Your task to perform on an android device: Search for vegetarian restaurants on Maps Image 0: 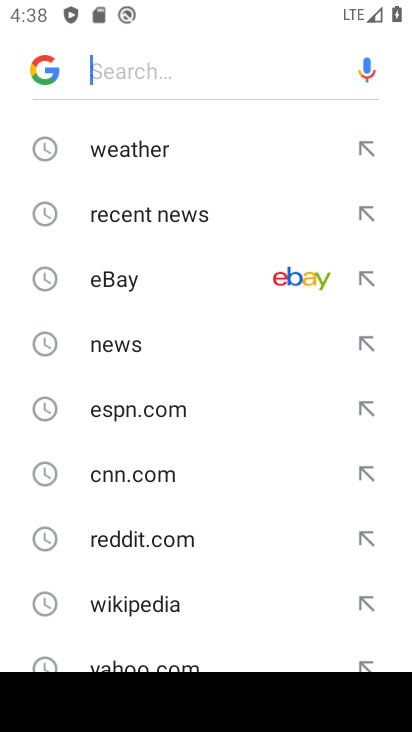
Step 0: press home button
Your task to perform on an android device: Search for vegetarian restaurants on Maps Image 1: 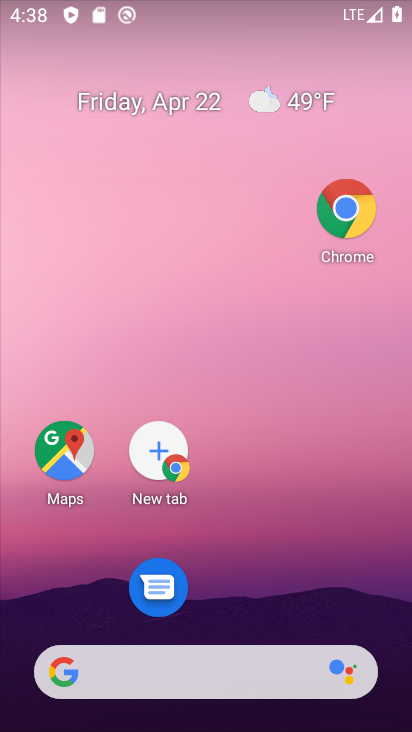
Step 1: click (75, 456)
Your task to perform on an android device: Search for vegetarian restaurants on Maps Image 2: 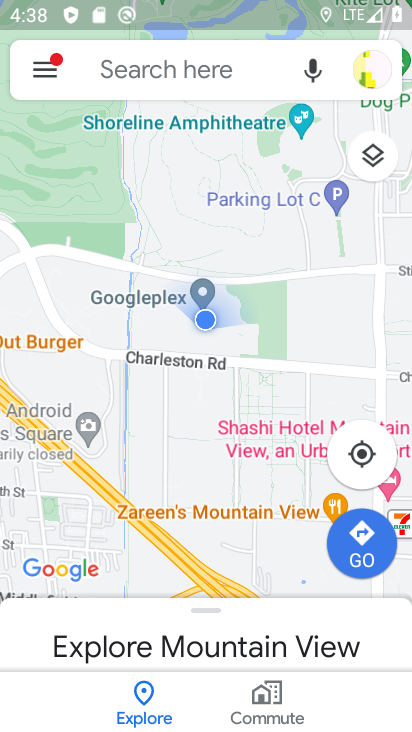
Step 2: click (160, 86)
Your task to perform on an android device: Search for vegetarian restaurants on Maps Image 3: 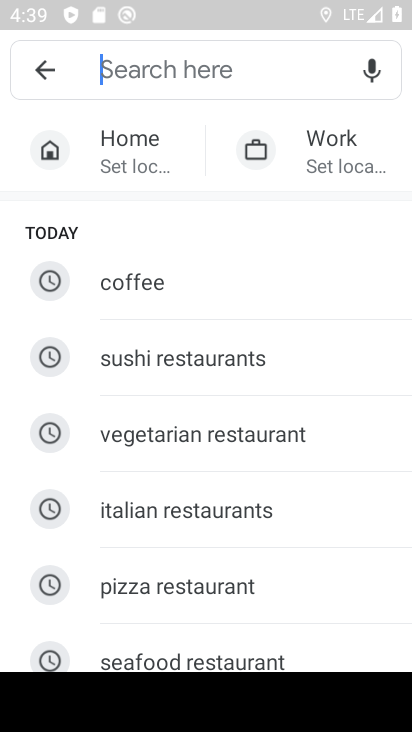
Step 3: click (238, 458)
Your task to perform on an android device: Search for vegetarian restaurants on Maps Image 4: 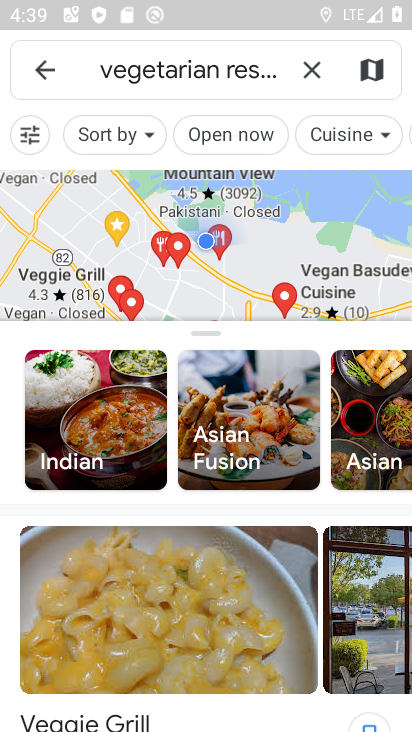
Step 4: task complete